Your task to perform on an android device: open app "Microsoft Outlook" Image 0: 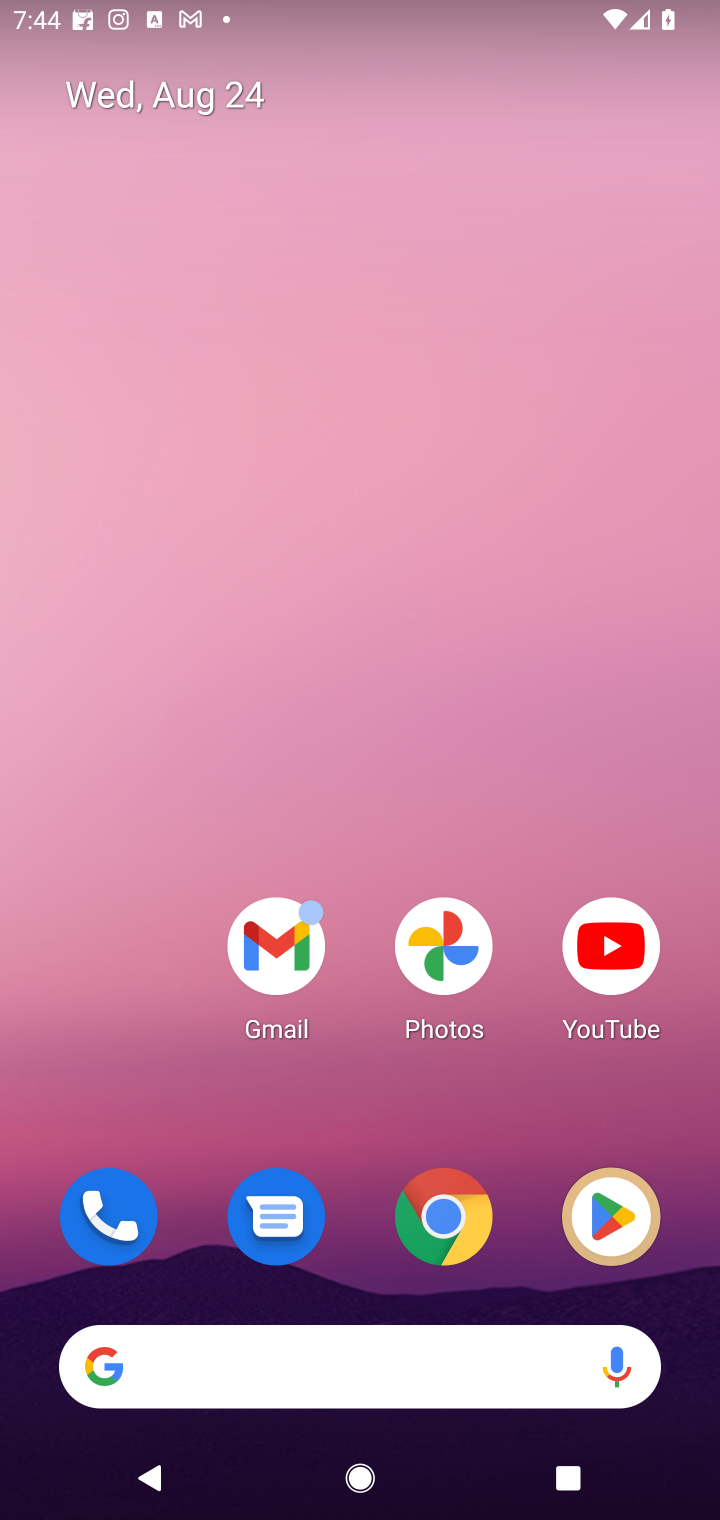
Step 0: click (576, 1205)
Your task to perform on an android device: open app "Microsoft Outlook" Image 1: 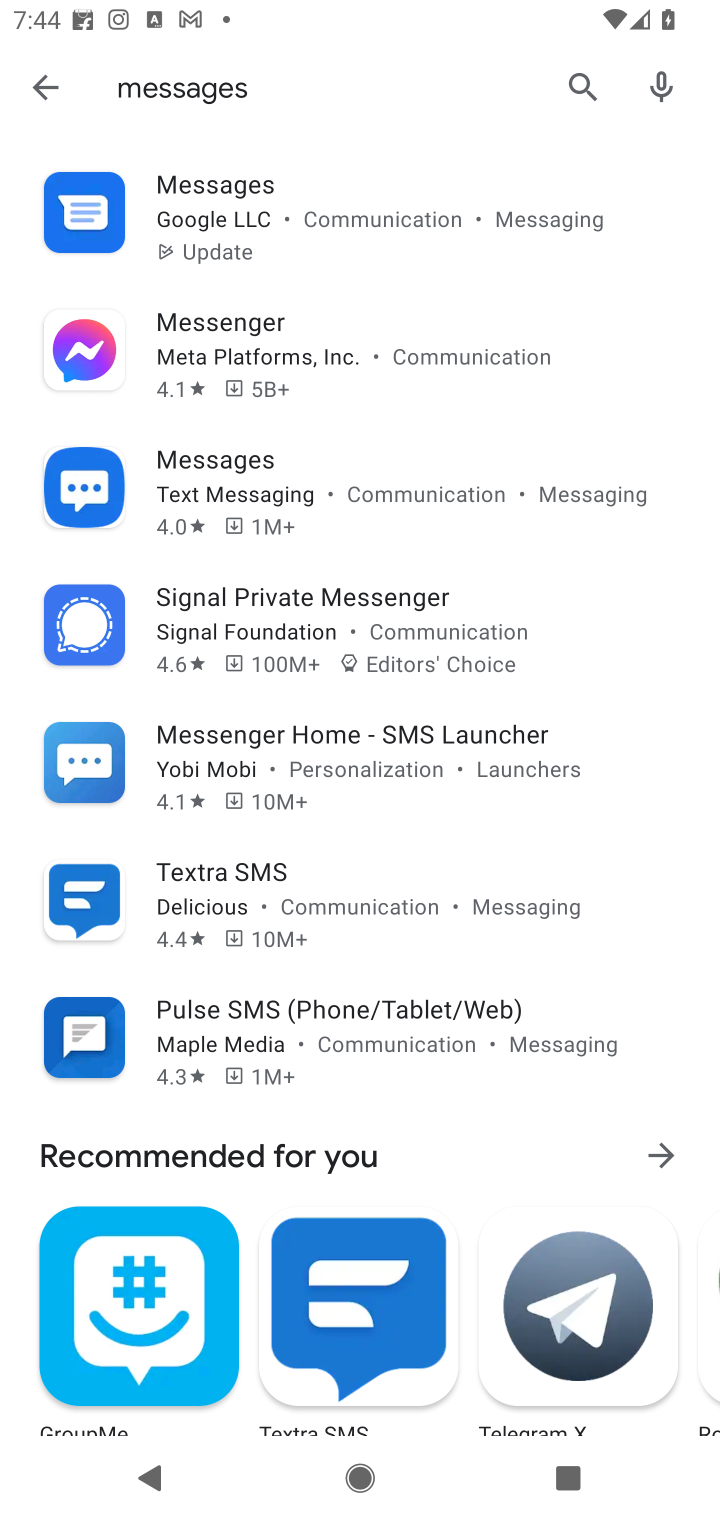
Step 1: click (592, 112)
Your task to perform on an android device: open app "Microsoft Outlook" Image 2: 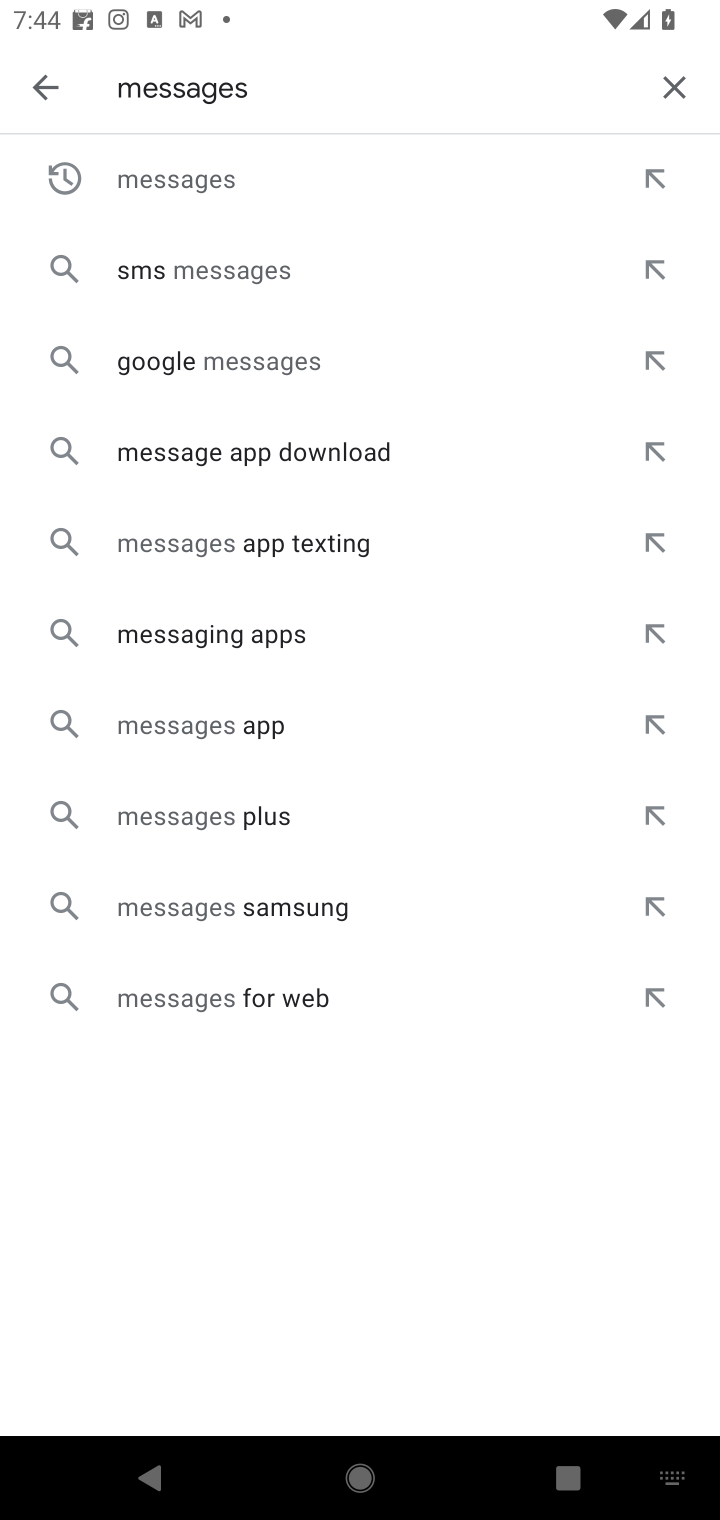
Step 2: click (687, 77)
Your task to perform on an android device: open app "Microsoft Outlook" Image 3: 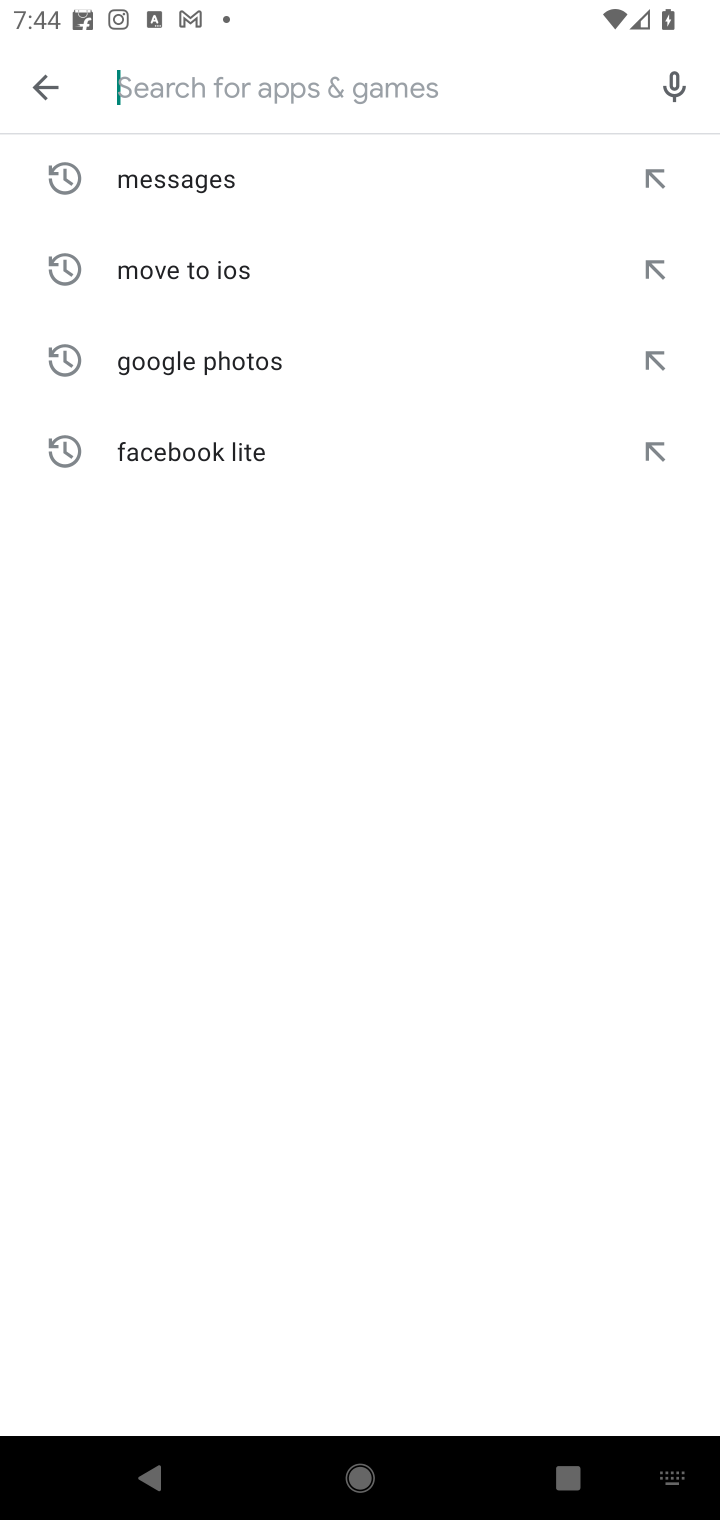
Step 3: type "Microsoft Outlook"
Your task to perform on an android device: open app "Microsoft Outlook" Image 4: 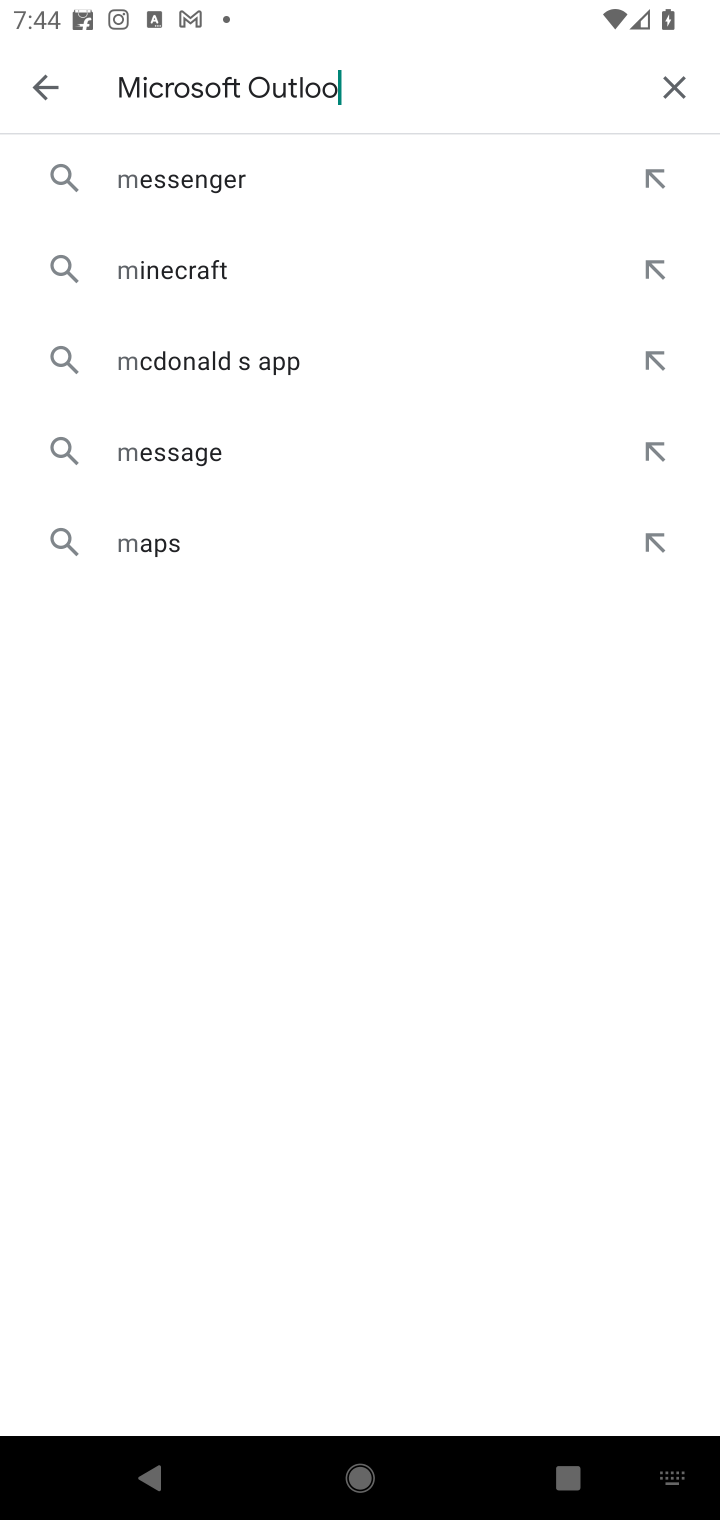
Step 4: type ""
Your task to perform on an android device: open app "Microsoft Outlook" Image 5: 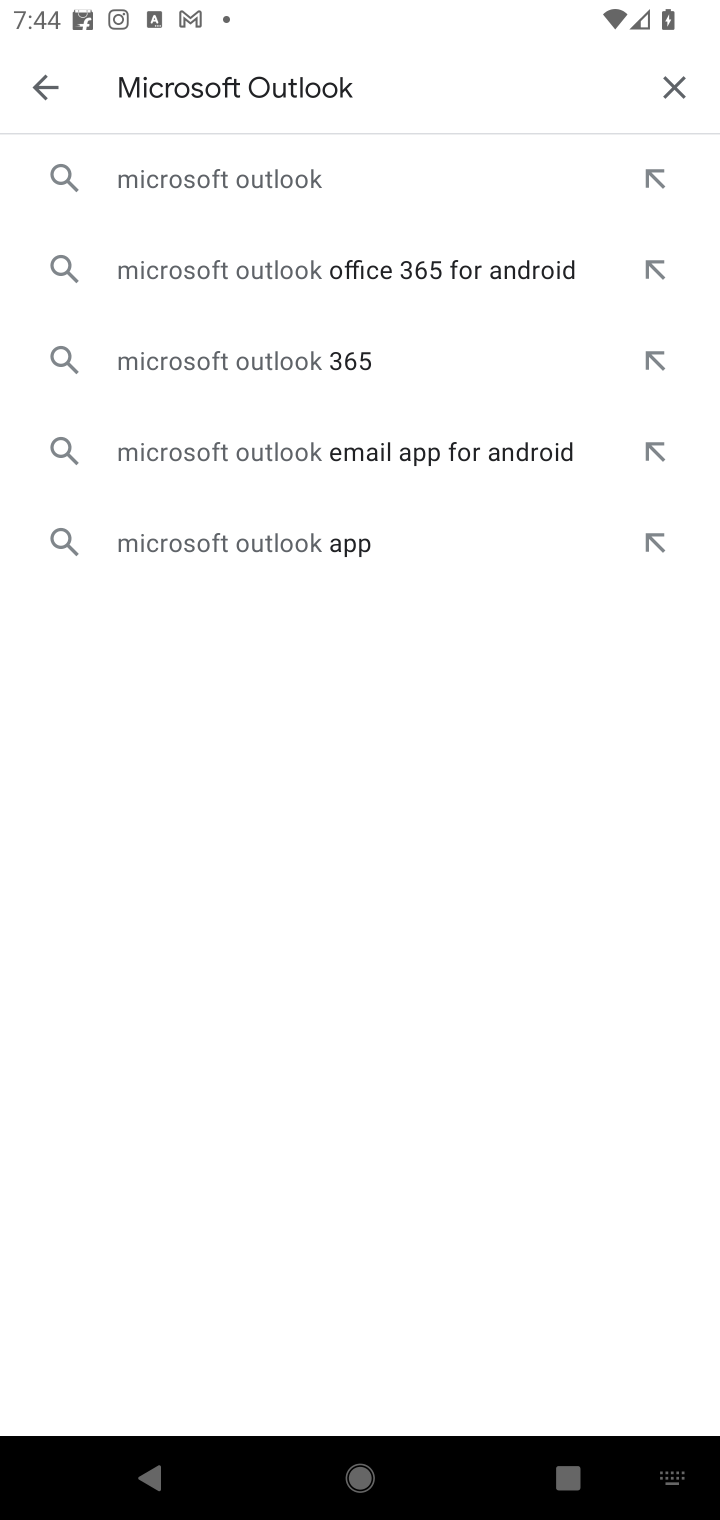
Step 5: click (320, 196)
Your task to perform on an android device: open app "Microsoft Outlook" Image 6: 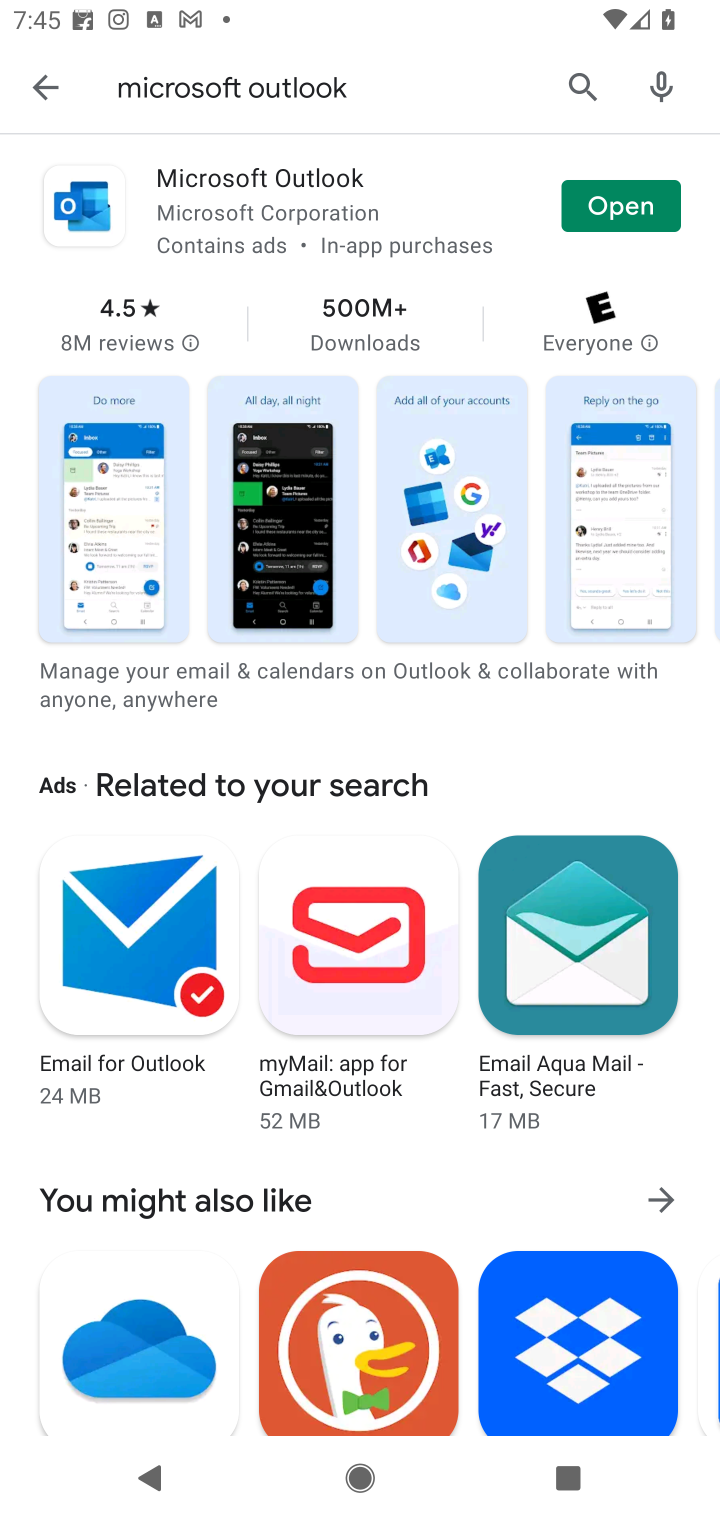
Step 6: click (631, 201)
Your task to perform on an android device: open app "Microsoft Outlook" Image 7: 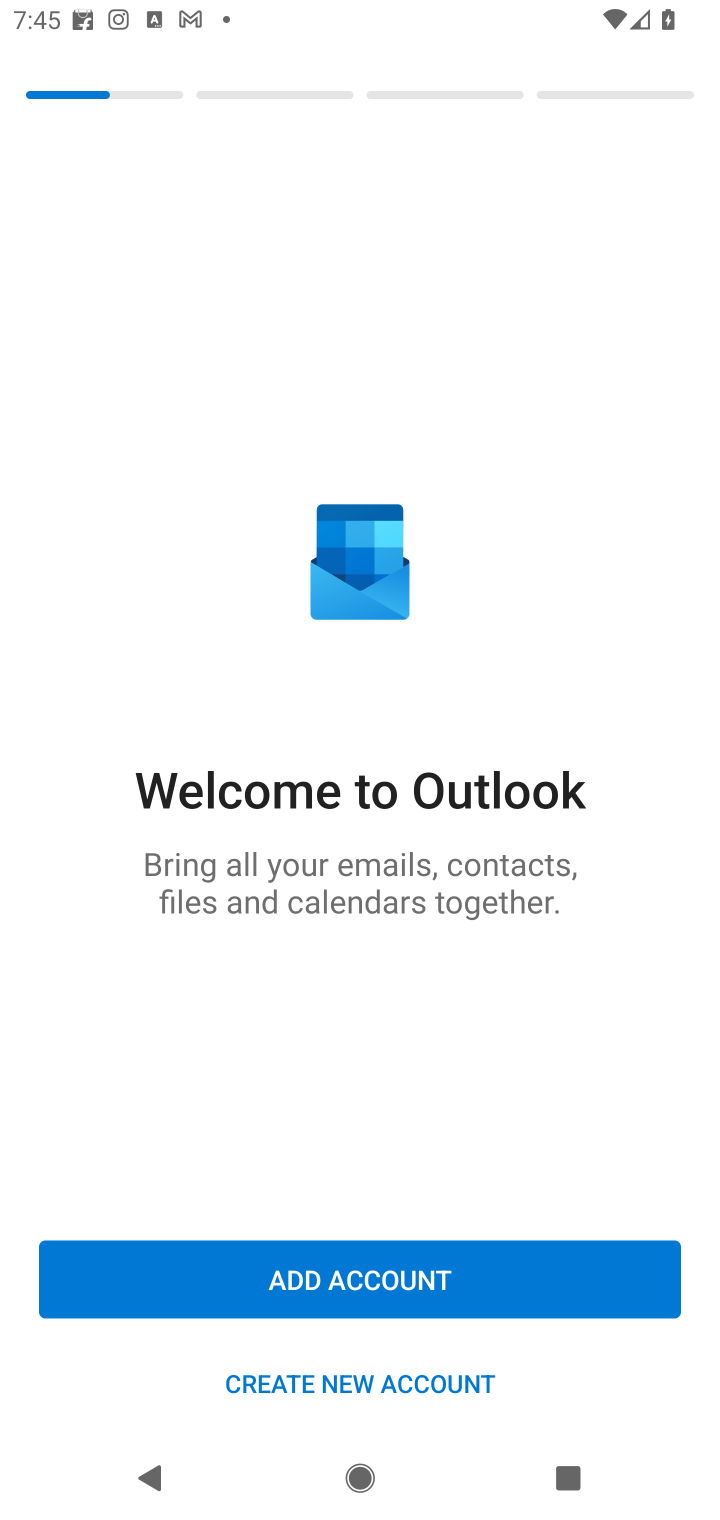
Step 7: task complete